Your task to perform on an android device: Turn off the flashlight Image 0: 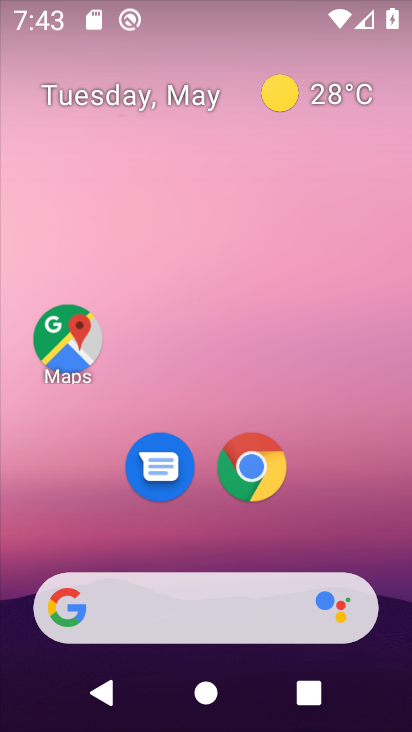
Step 0: drag from (396, 661) to (335, 153)
Your task to perform on an android device: Turn off the flashlight Image 1: 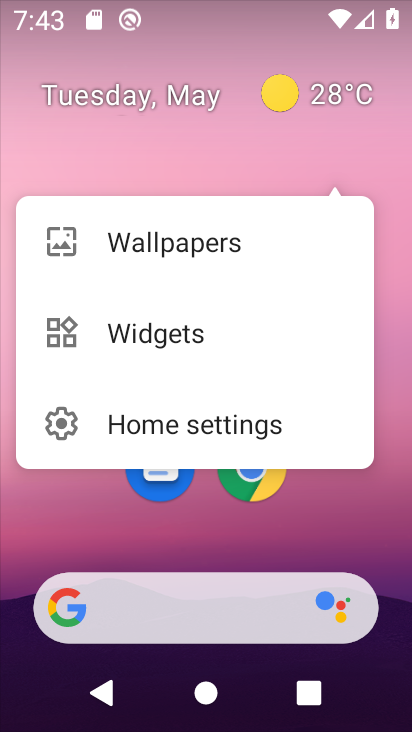
Step 1: press back button
Your task to perform on an android device: Turn off the flashlight Image 2: 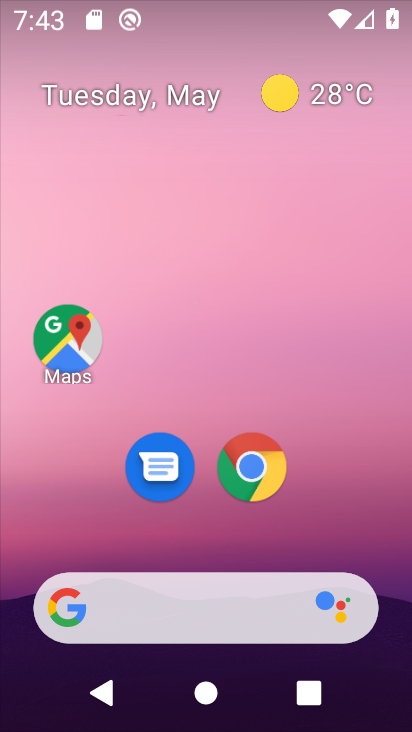
Step 2: click (388, 39)
Your task to perform on an android device: Turn off the flashlight Image 3: 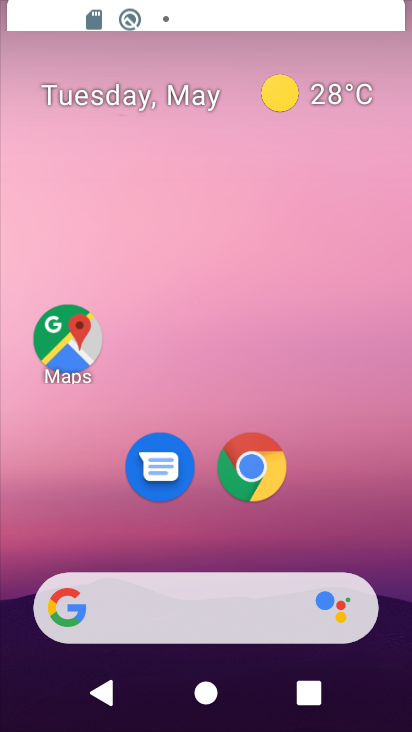
Step 3: drag from (386, 715) to (296, 119)
Your task to perform on an android device: Turn off the flashlight Image 4: 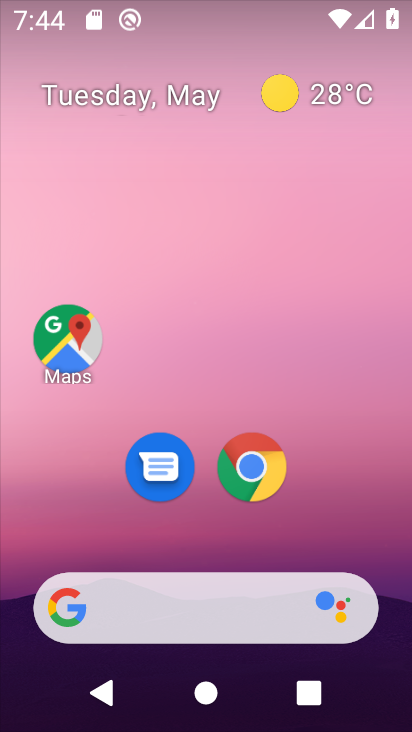
Step 4: drag from (396, 711) to (359, 87)
Your task to perform on an android device: Turn off the flashlight Image 5: 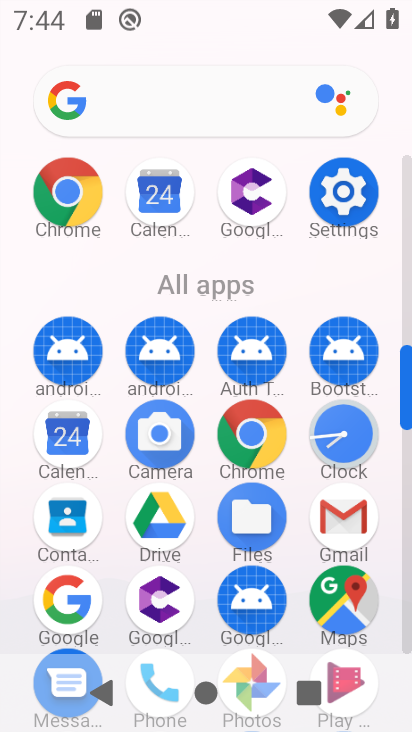
Step 5: click (356, 195)
Your task to perform on an android device: Turn off the flashlight Image 6: 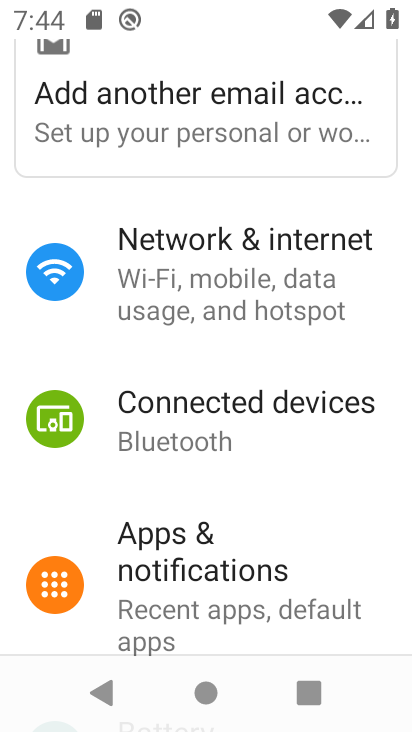
Step 6: drag from (306, 638) to (260, 314)
Your task to perform on an android device: Turn off the flashlight Image 7: 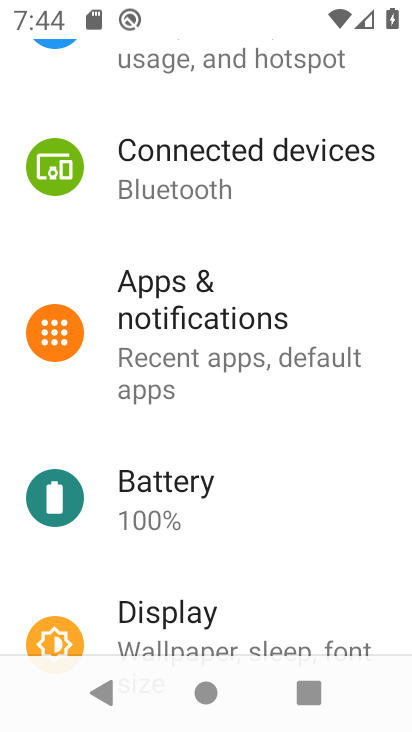
Step 7: click (192, 604)
Your task to perform on an android device: Turn off the flashlight Image 8: 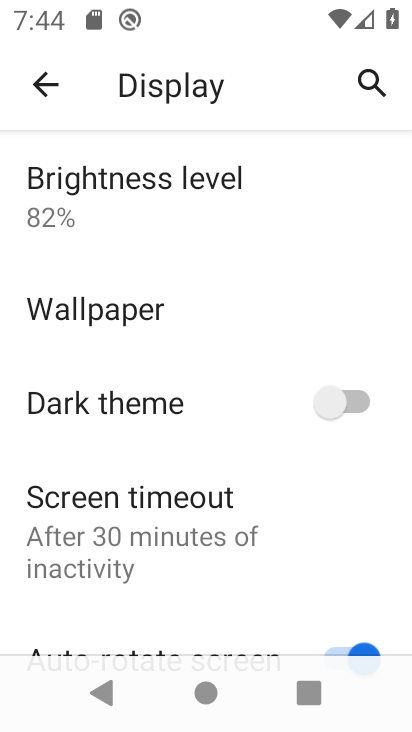
Step 8: task complete